Your task to perform on an android device: uninstall "YouTube Kids" Image 0: 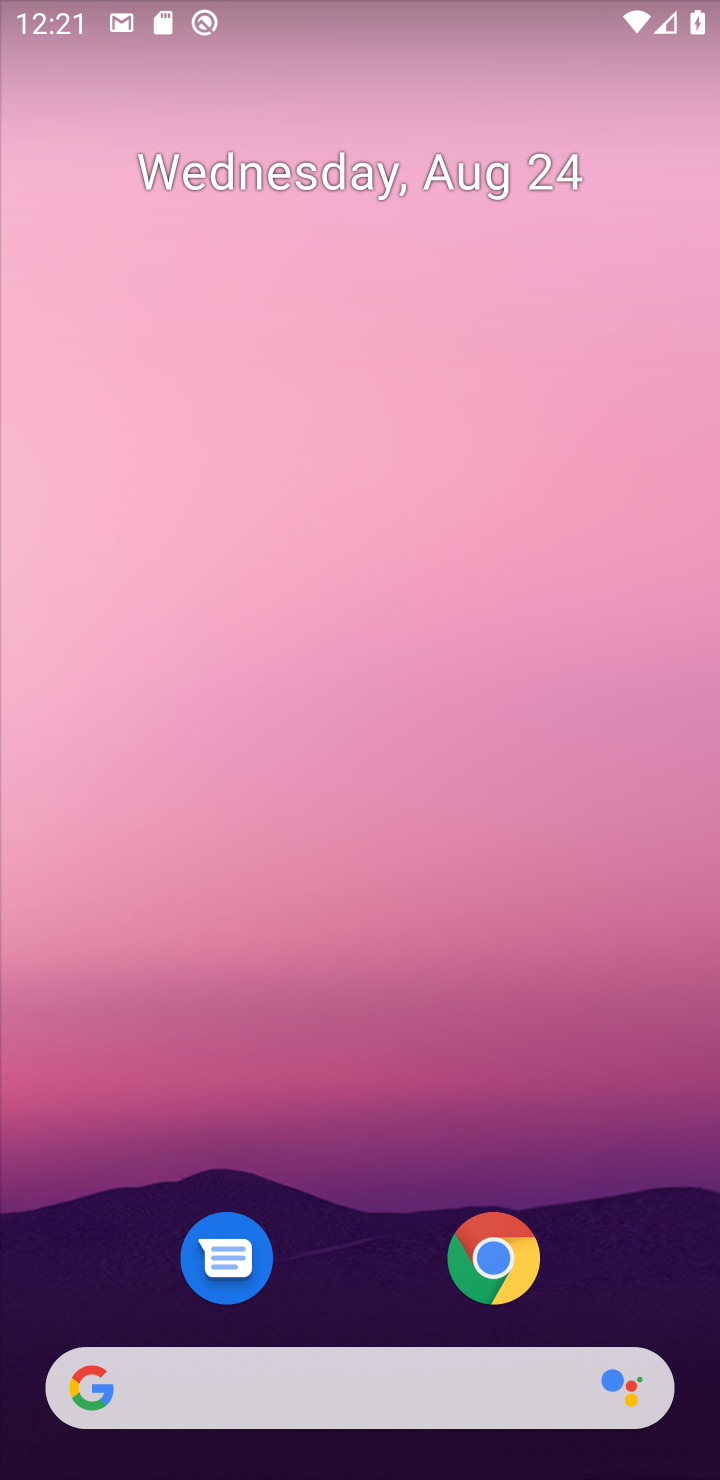
Step 0: drag from (211, 784) to (390, 52)
Your task to perform on an android device: uninstall "YouTube Kids" Image 1: 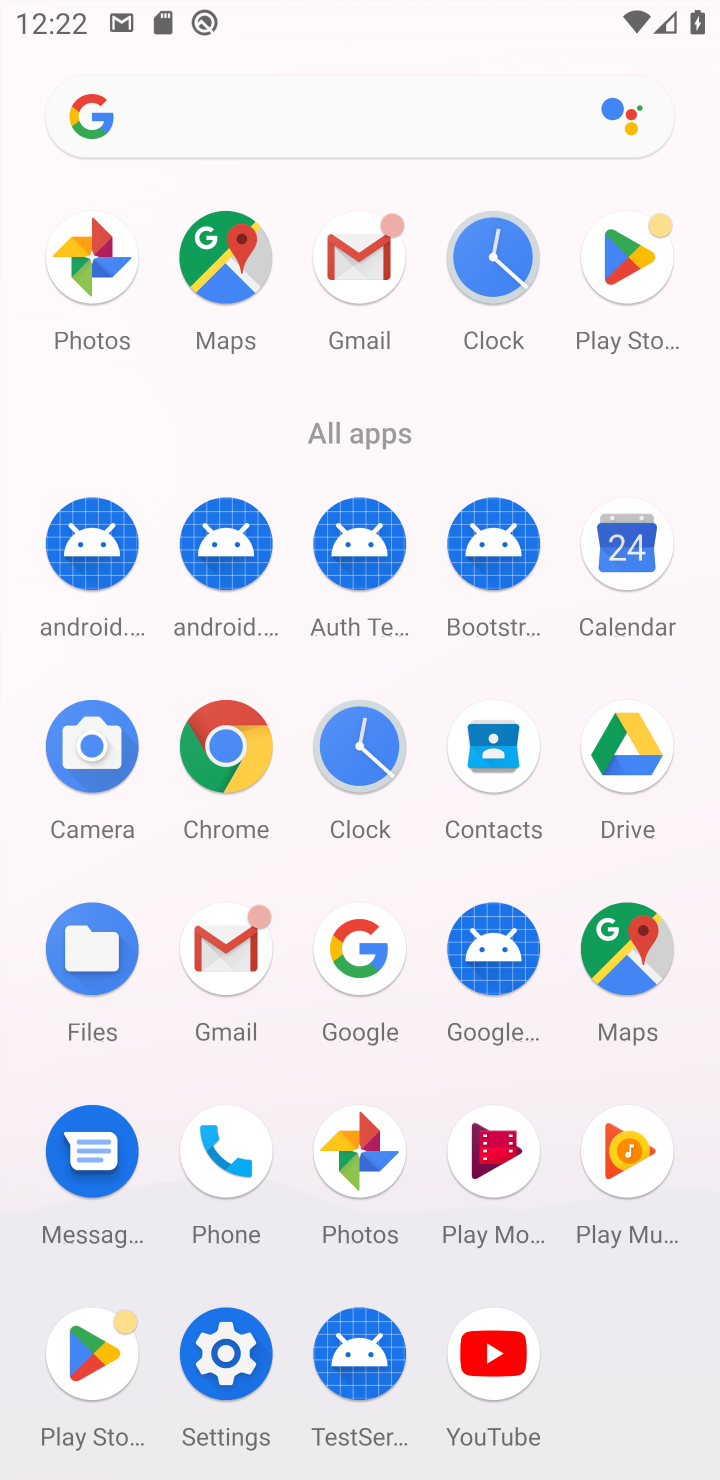
Step 1: click (641, 302)
Your task to perform on an android device: uninstall "YouTube Kids" Image 2: 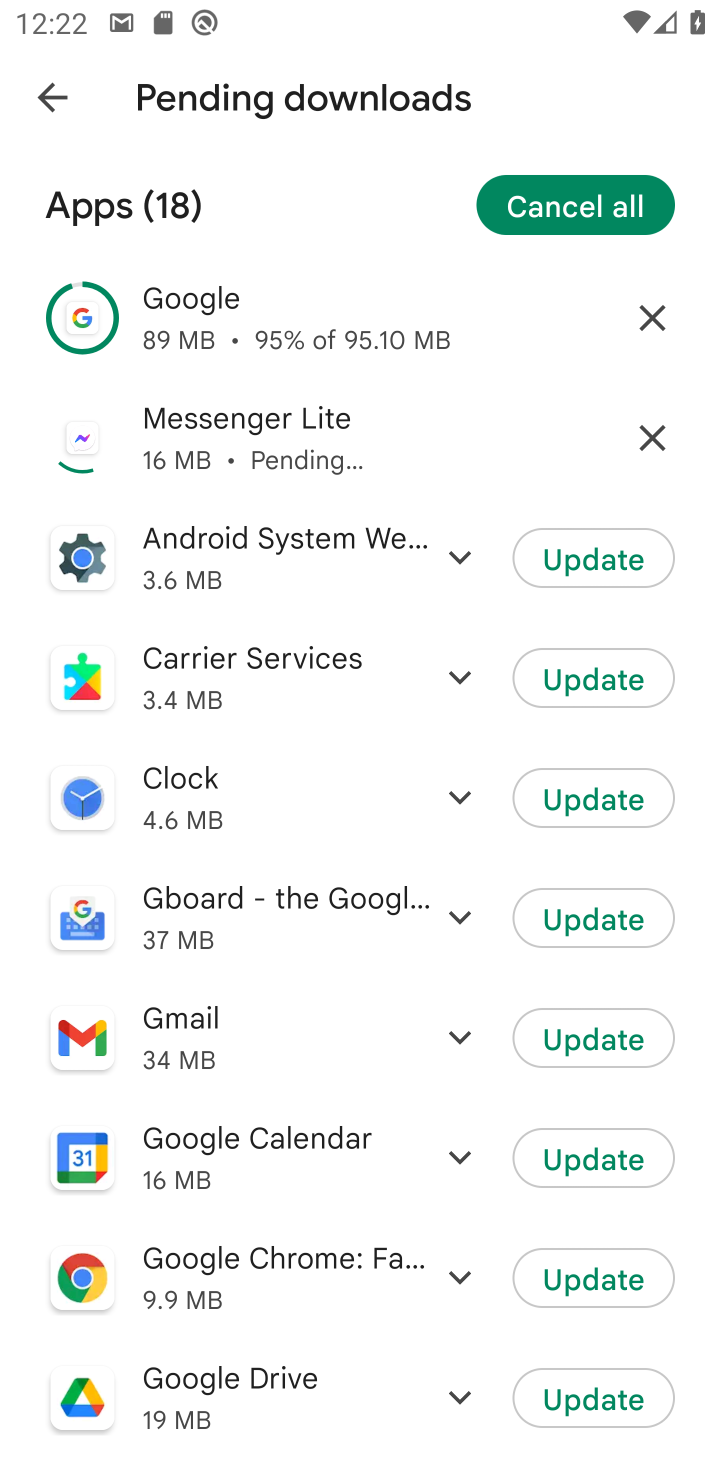
Step 2: click (648, 431)
Your task to perform on an android device: uninstall "YouTube Kids" Image 3: 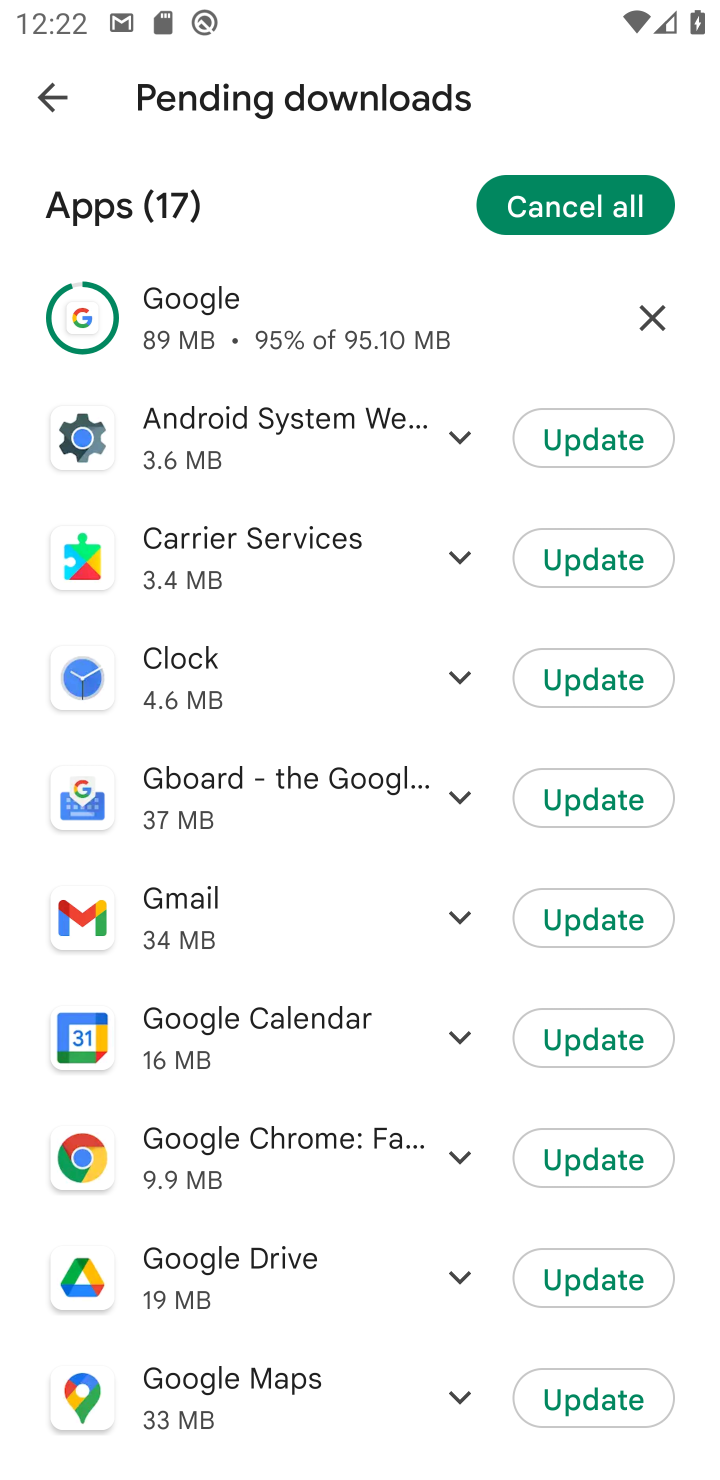
Step 3: click (55, 86)
Your task to perform on an android device: uninstall "YouTube Kids" Image 4: 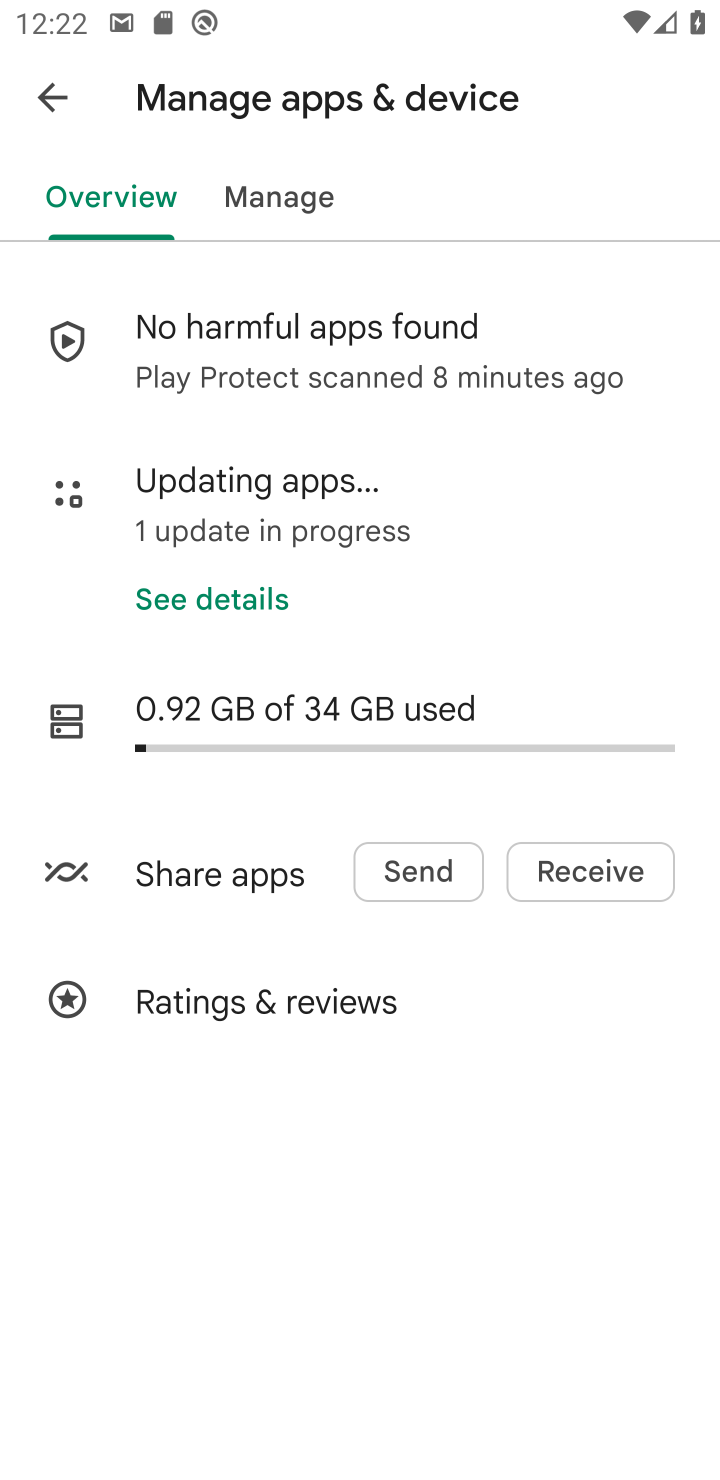
Step 4: click (55, 86)
Your task to perform on an android device: uninstall "YouTube Kids" Image 5: 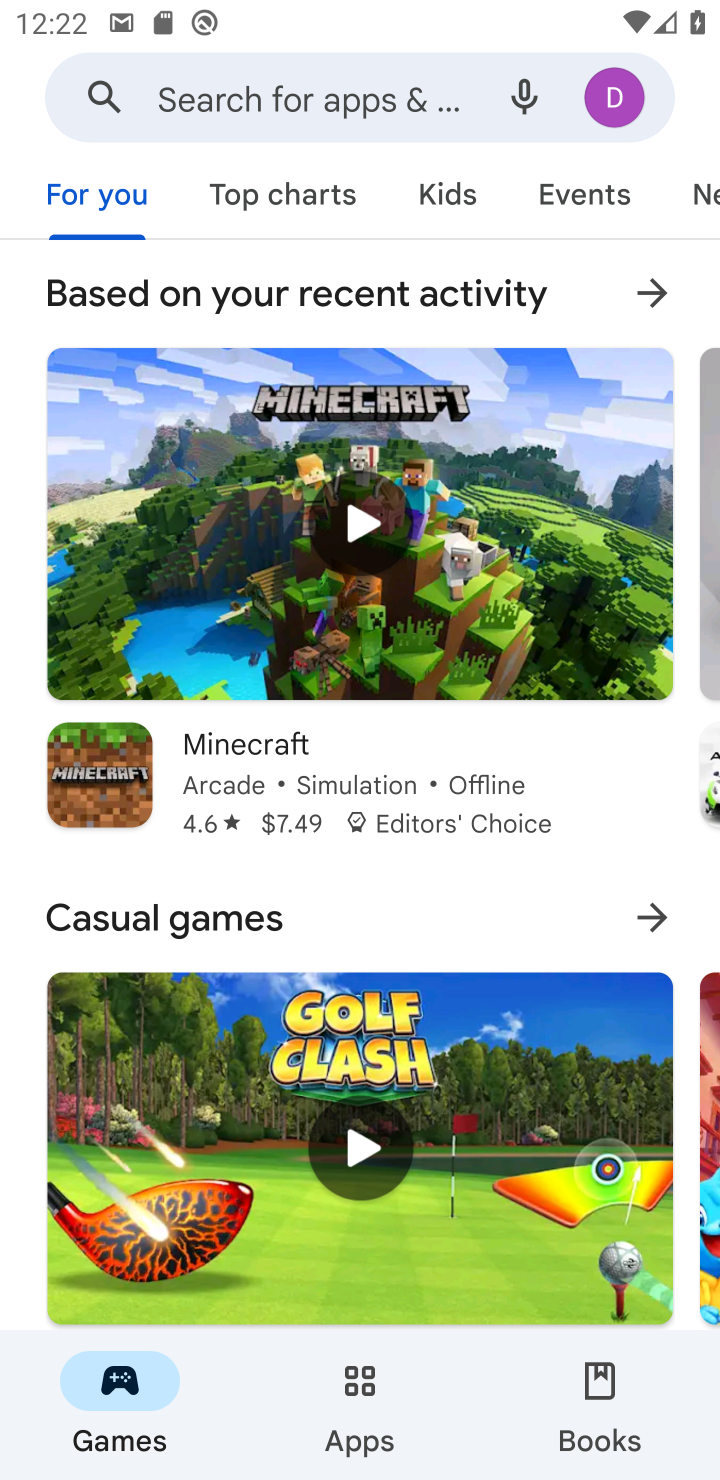
Step 5: click (307, 111)
Your task to perform on an android device: uninstall "YouTube Kids" Image 6: 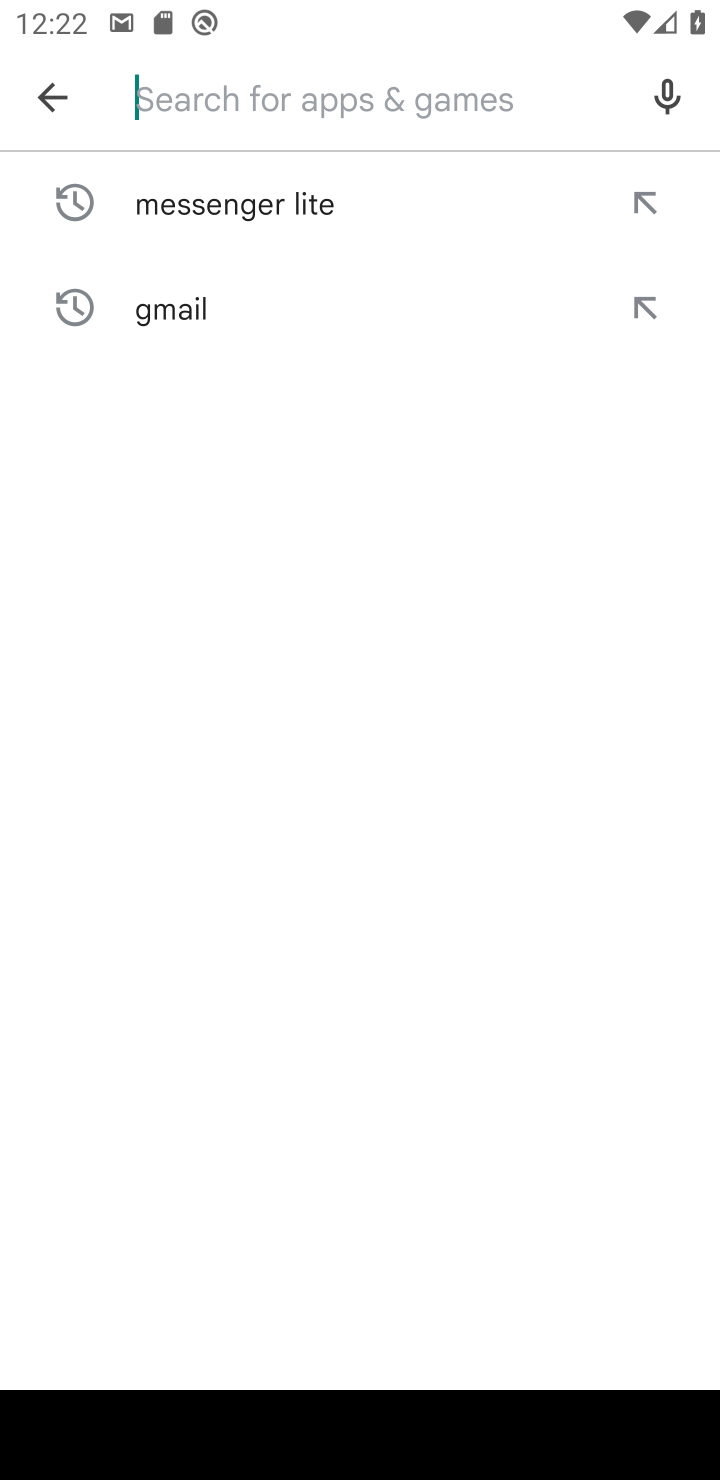
Step 6: type "youtube kids"
Your task to perform on an android device: uninstall "YouTube Kids" Image 7: 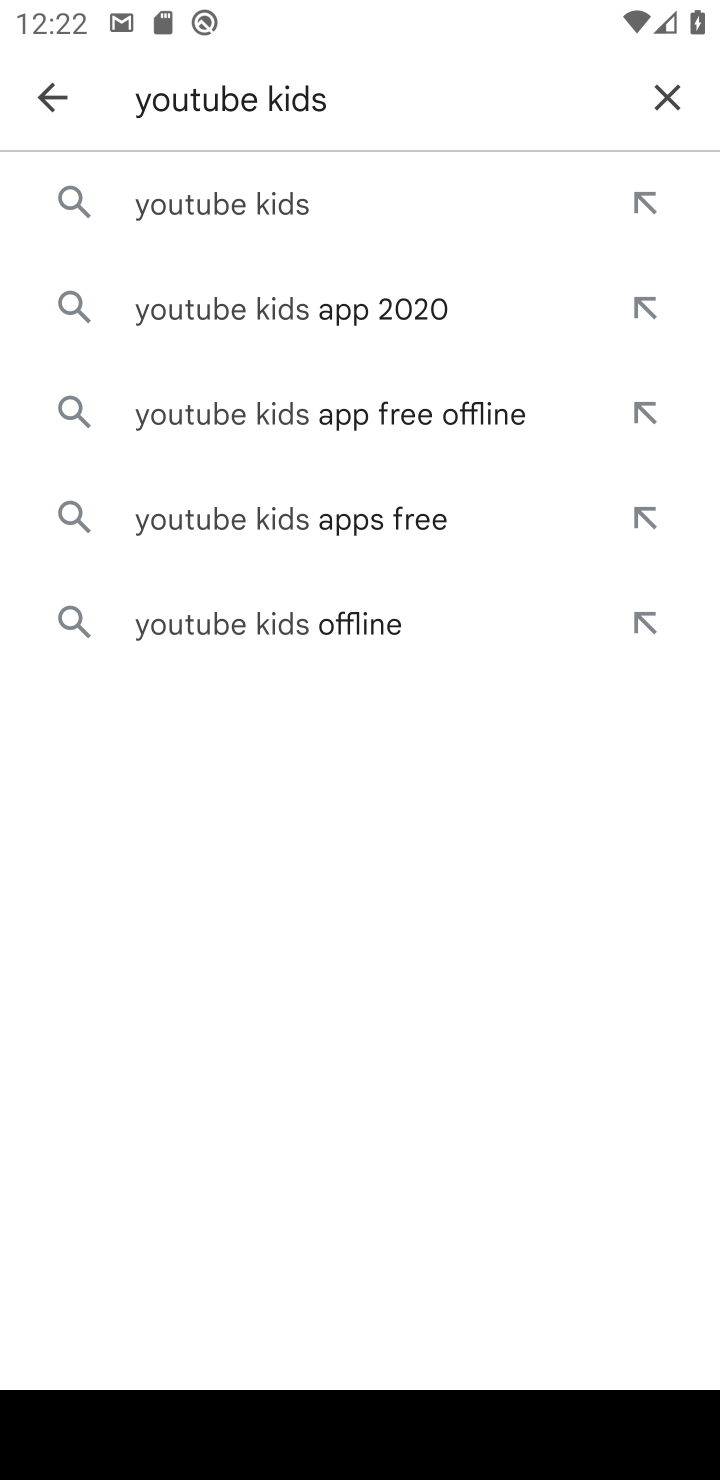
Step 7: click (270, 194)
Your task to perform on an android device: uninstall "YouTube Kids" Image 8: 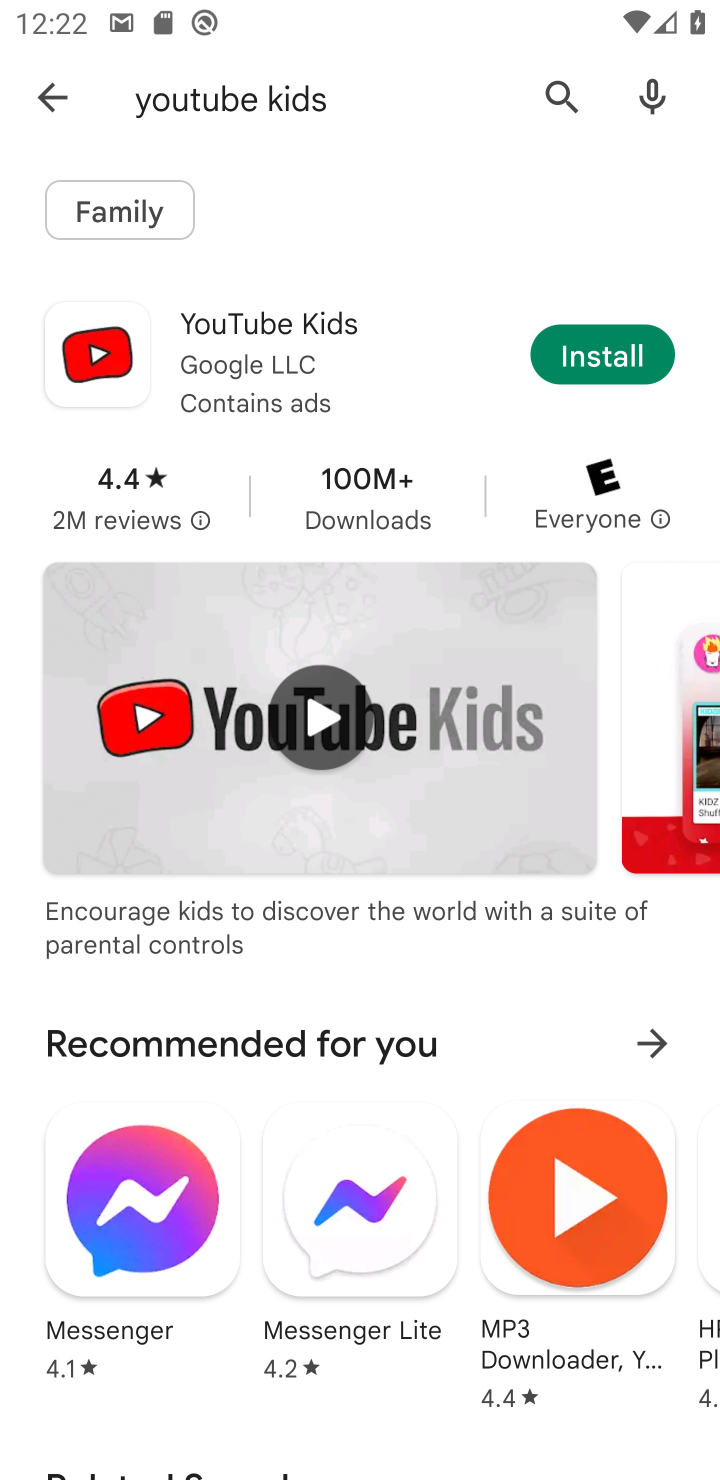
Step 8: click (210, 356)
Your task to perform on an android device: uninstall "YouTube Kids" Image 9: 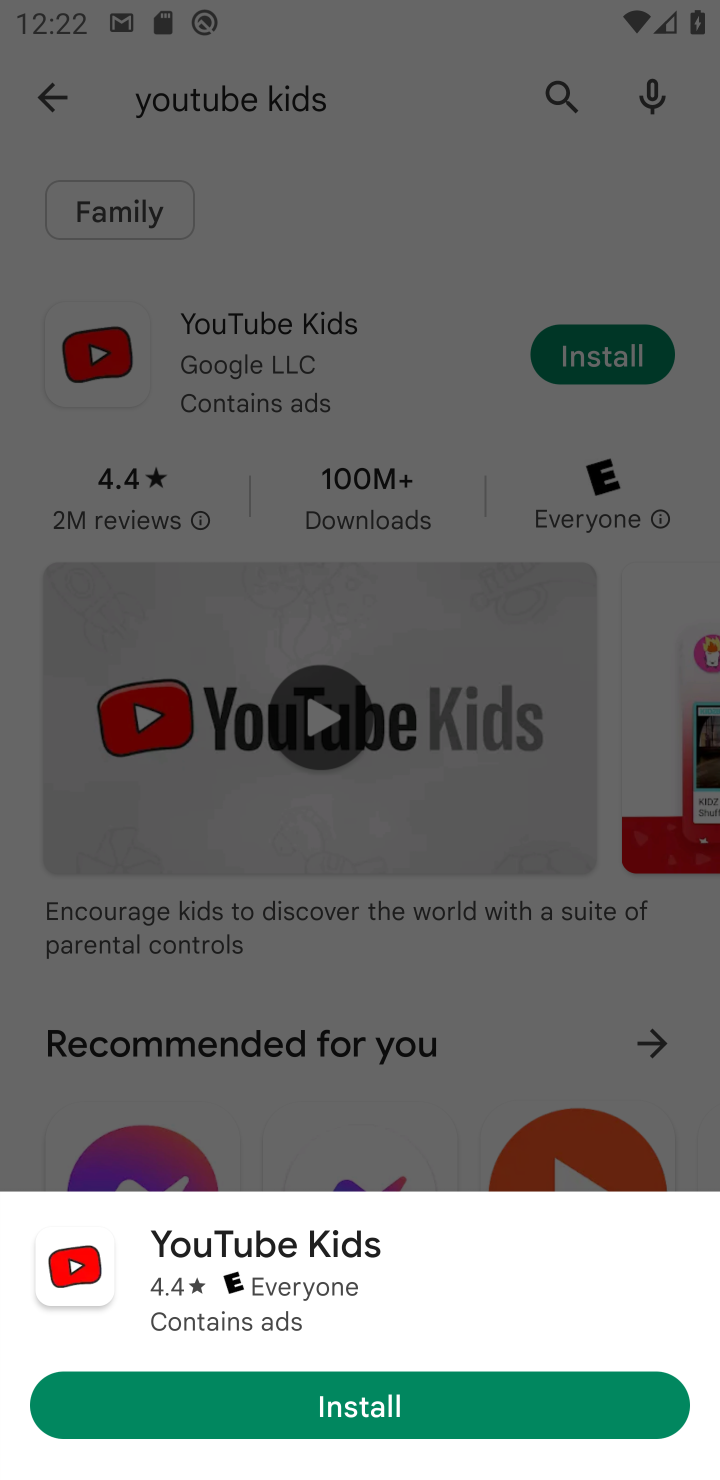
Step 9: click (181, 340)
Your task to perform on an android device: uninstall "YouTube Kids" Image 10: 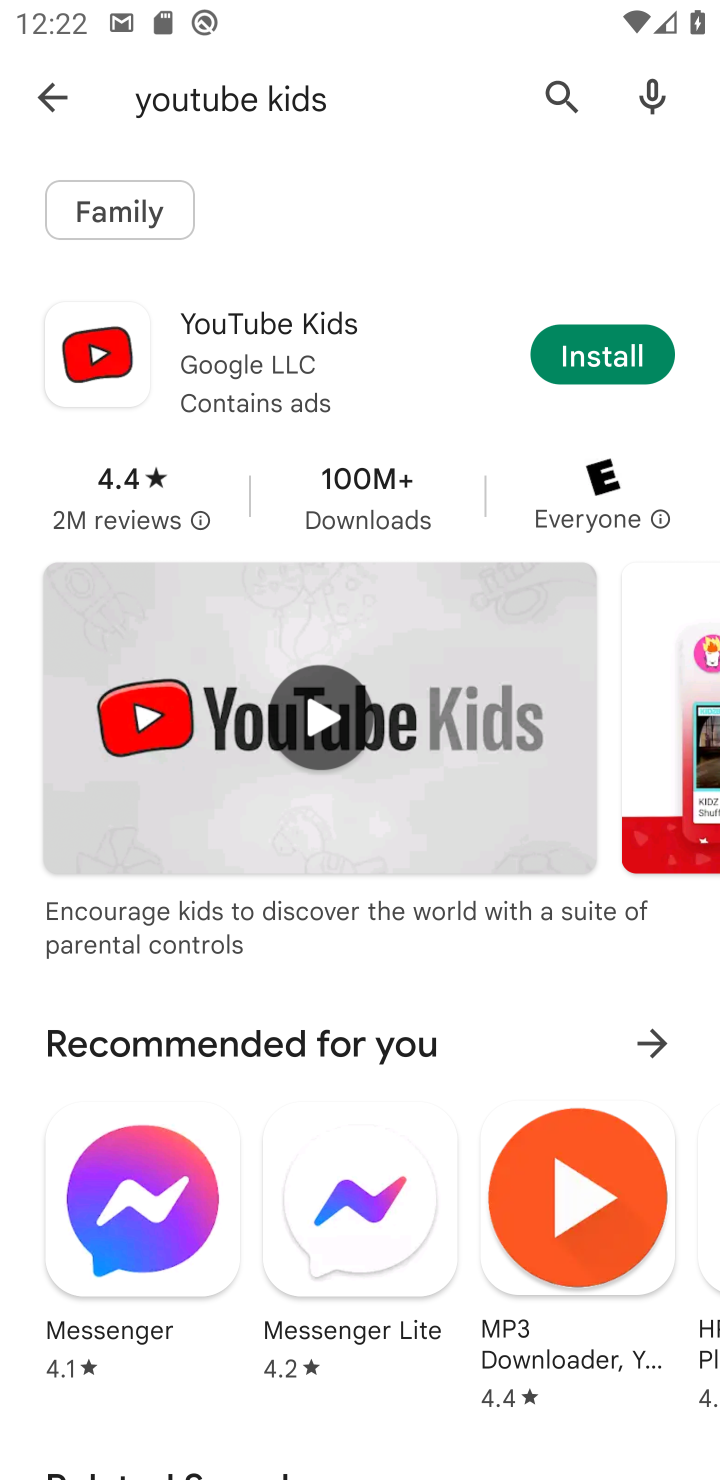
Step 10: click (309, 341)
Your task to perform on an android device: uninstall "YouTube Kids" Image 11: 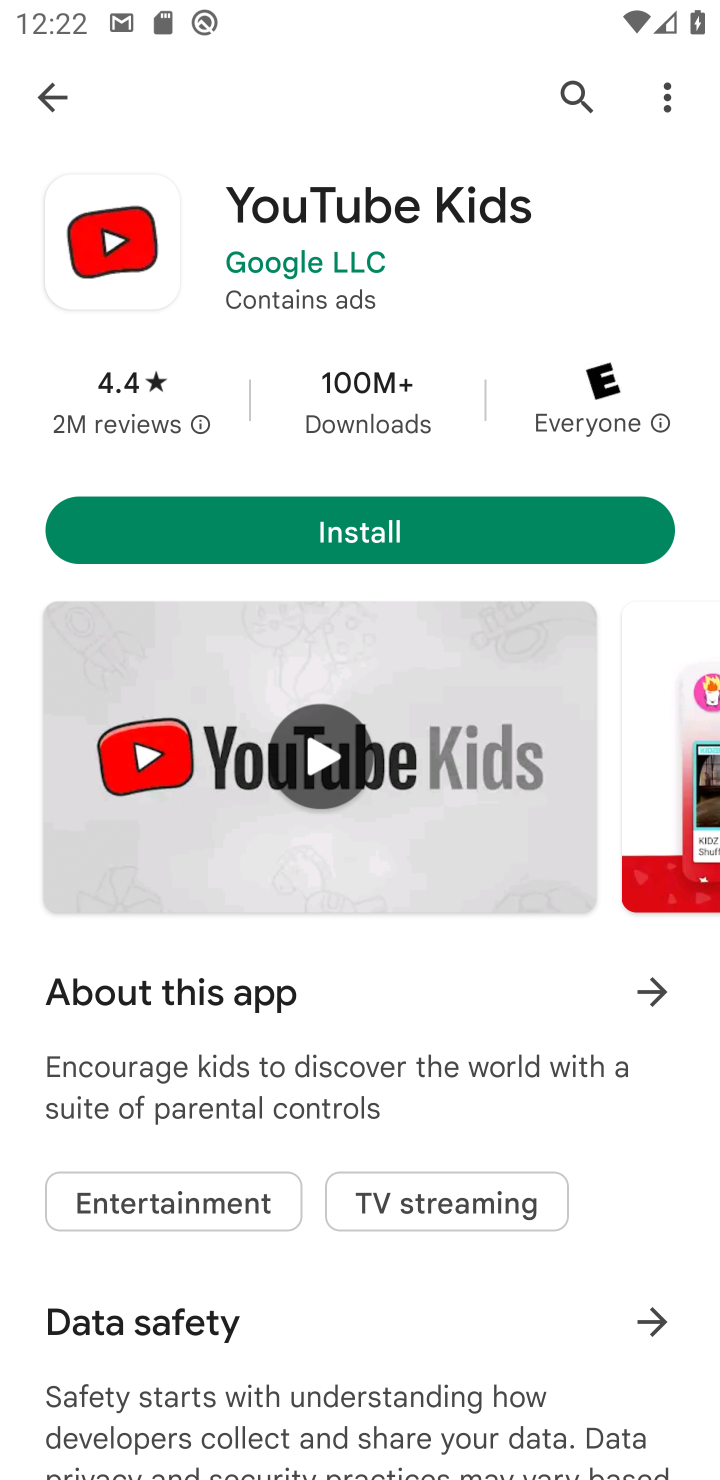
Step 11: task complete